Your task to perform on an android device: Is it going to rain this weekend? Image 0: 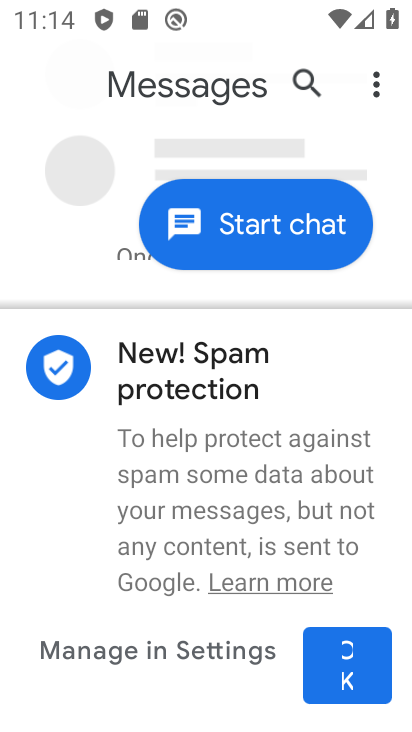
Step 0: press home button
Your task to perform on an android device: Is it going to rain this weekend? Image 1: 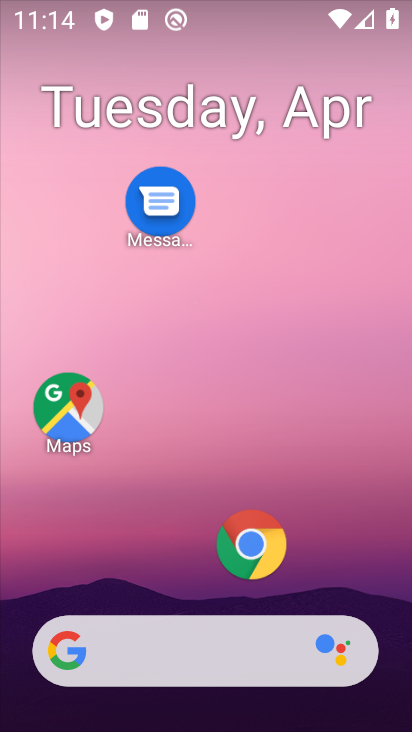
Step 1: click (153, 648)
Your task to perform on an android device: Is it going to rain this weekend? Image 2: 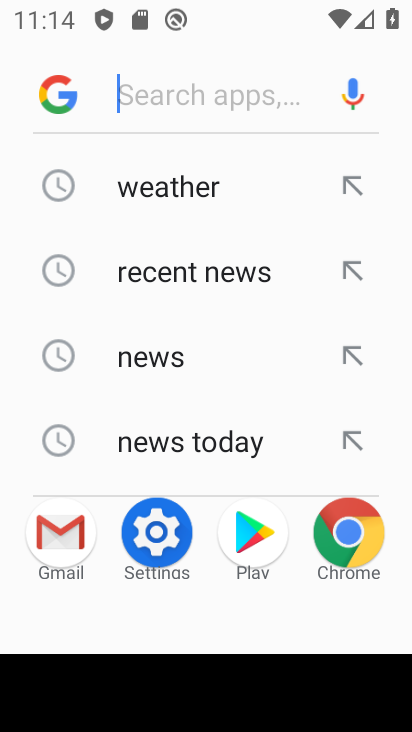
Step 2: click (189, 180)
Your task to perform on an android device: Is it going to rain this weekend? Image 3: 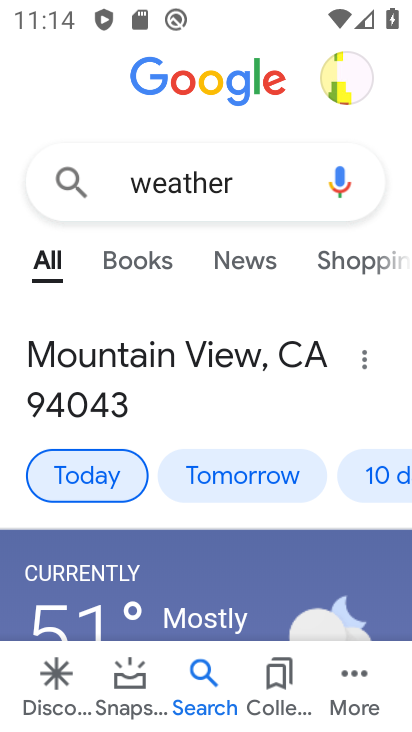
Step 3: click (383, 470)
Your task to perform on an android device: Is it going to rain this weekend? Image 4: 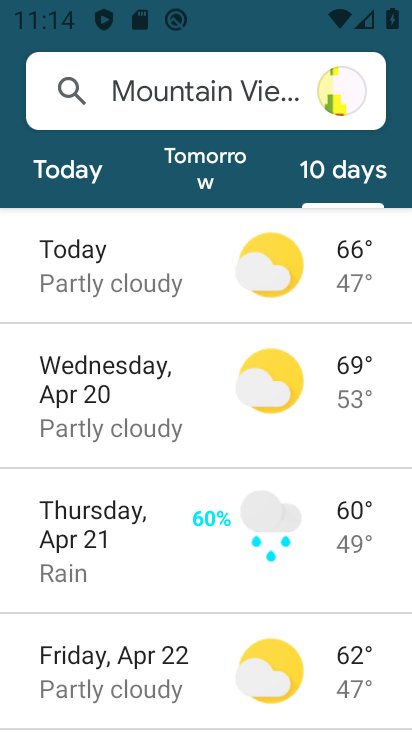
Step 4: task complete